Your task to perform on an android device: add a contact in the contacts app Image 0: 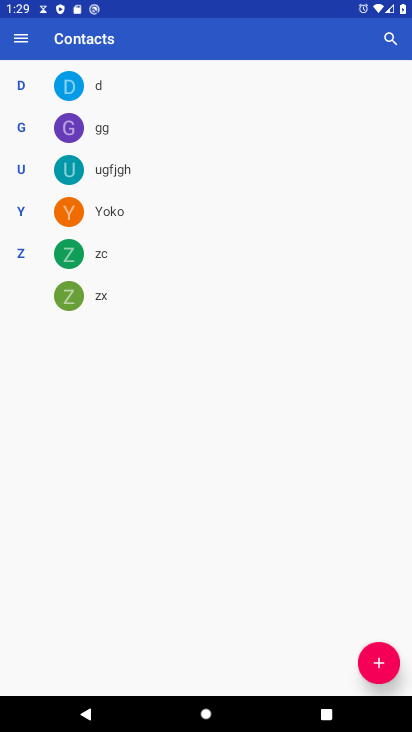
Step 0: press home button
Your task to perform on an android device: add a contact in the contacts app Image 1: 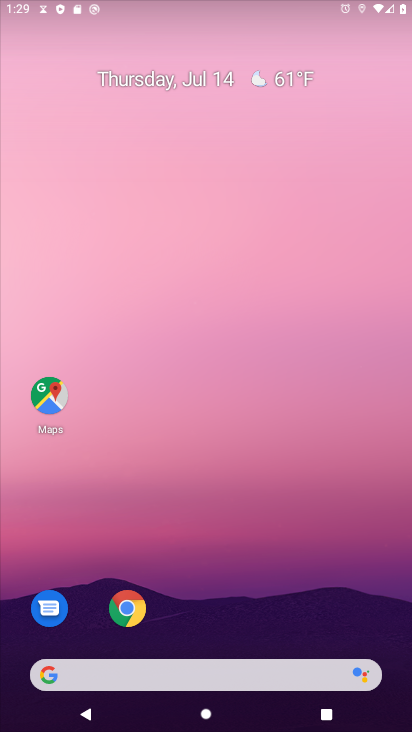
Step 1: drag from (96, 537) to (132, 147)
Your task to perform on an android device: add a contact in the contacts app Image 2: 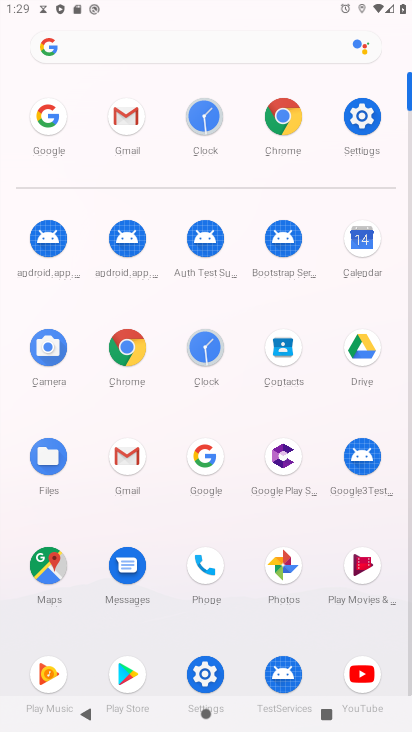
Step 2: click (270, 349)
Your task to perform on an android device: add a contact in the contacts app Image 3: 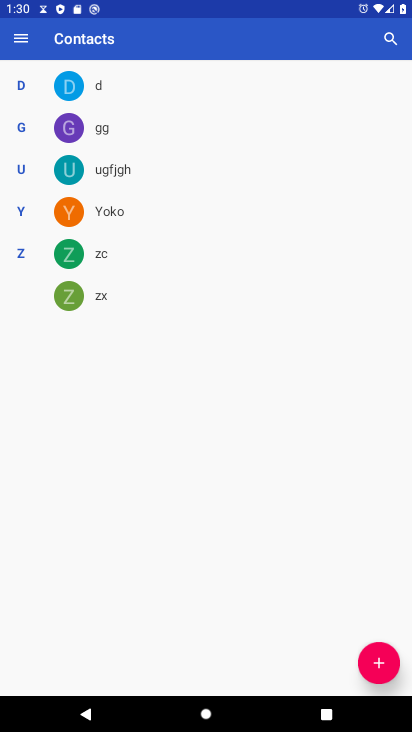
Step 3: click (370, 666)
Your task to perform on an android device: add a contact in the contacts app Image 4: 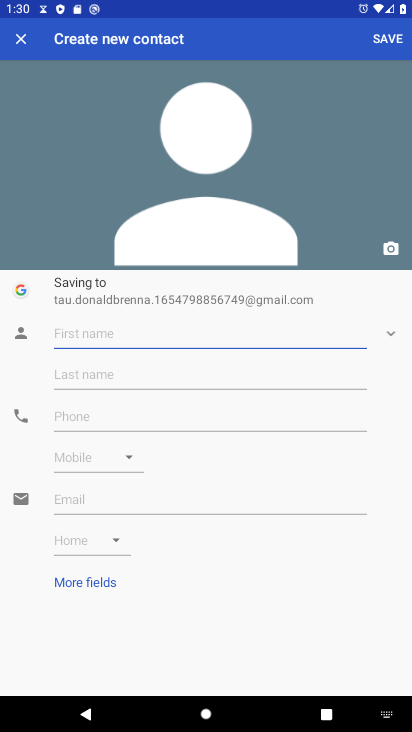
Step 4: type "pilu"
Your task to perform on an android device: add a contact in the contacts app Image 5: 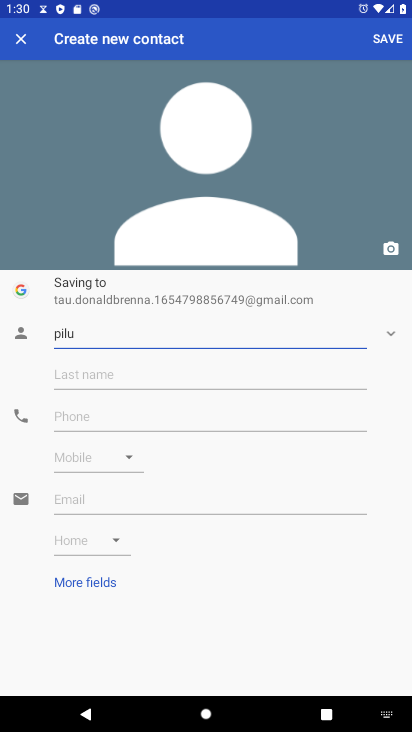
Step 5: click (70, 376)
Your task to perform on an android device: add a contact in the contacts app Image 6: 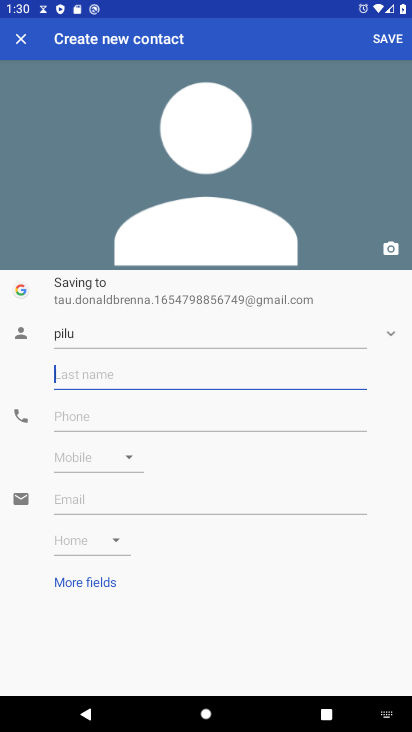
Step 6: type "puku"
Your task to perform on an android device: add a contact in the contacts app Image 7: 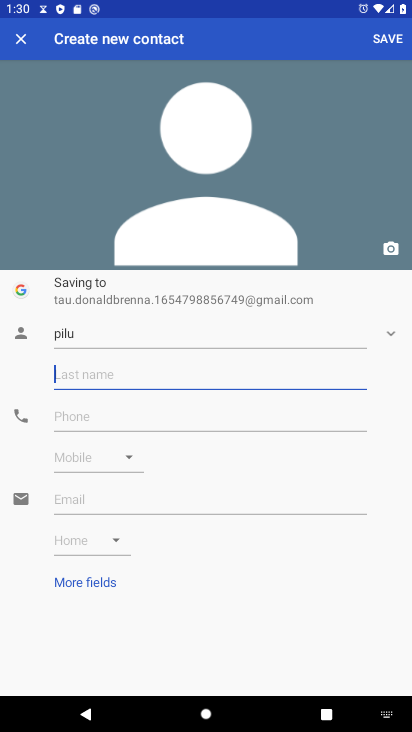
Step 7: click (71, 421)
Your task to perform on an android device: add a contact in the contacts app Image 8: 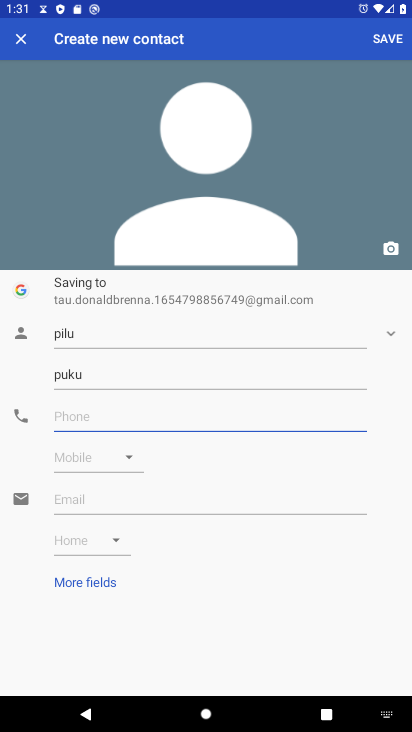
Step 8: type "8987856543"
Your task to perform on an android device: add a contact in the contacts app Image 9: 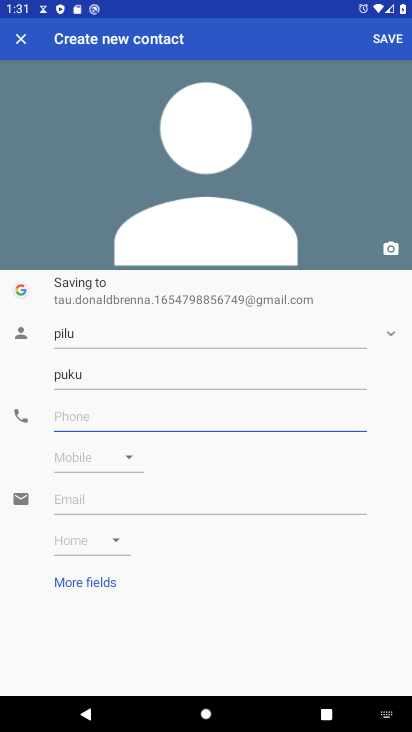
Step 9: click (113, 410)
Your task to perform on an android device: add a contact in the contacts app Image 10: 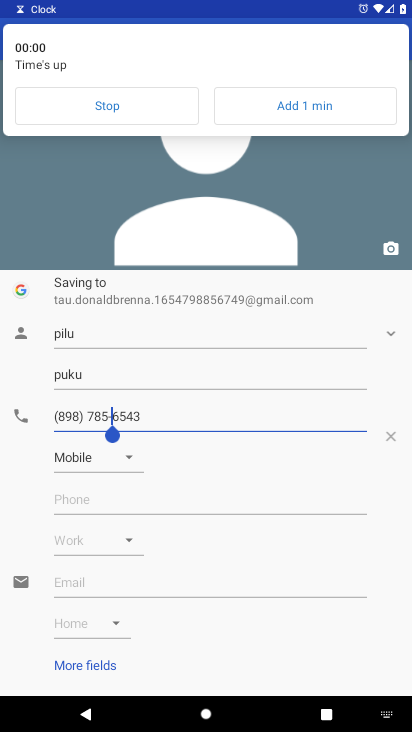
Step 10: click (376, 38)
Your task to perform on an android device: add a contact in the contacts app Image 11: 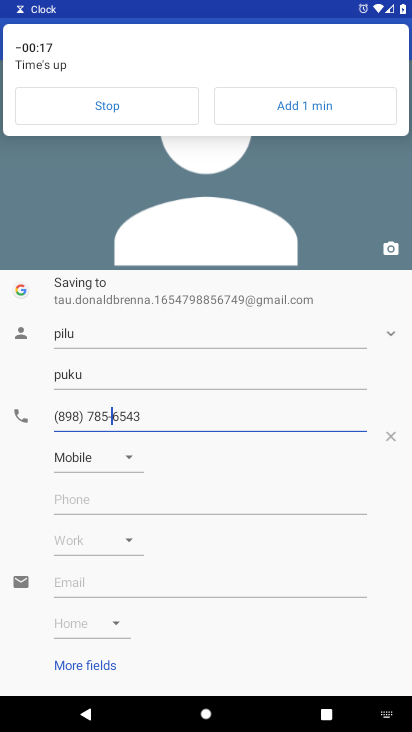
Step 11: click (139, 102)
Your task to perform on an android device: add a contact in the contacts app Image 12: 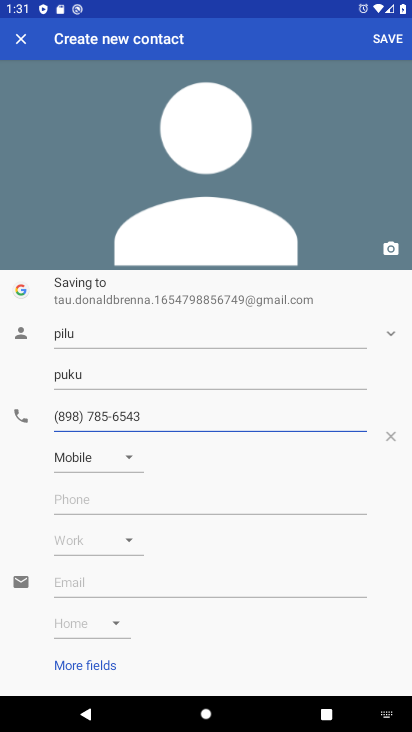
Step 12: click (383, 44)
Your task to perform on an android device: add a contact in the contacts app Image 13: 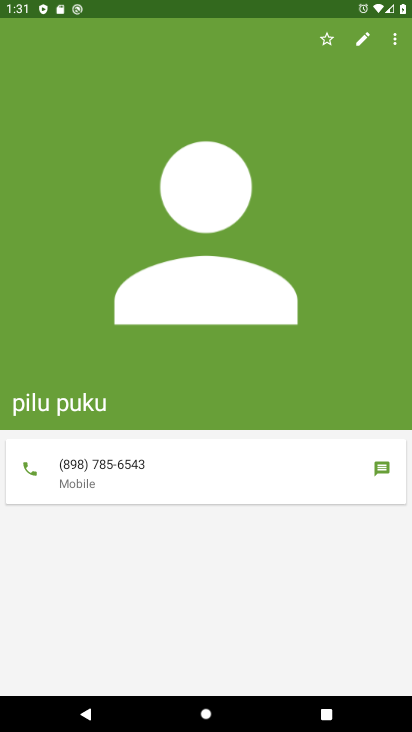
Step 13: task complete